Your task to perform on an android device: set an alarm Image 0: 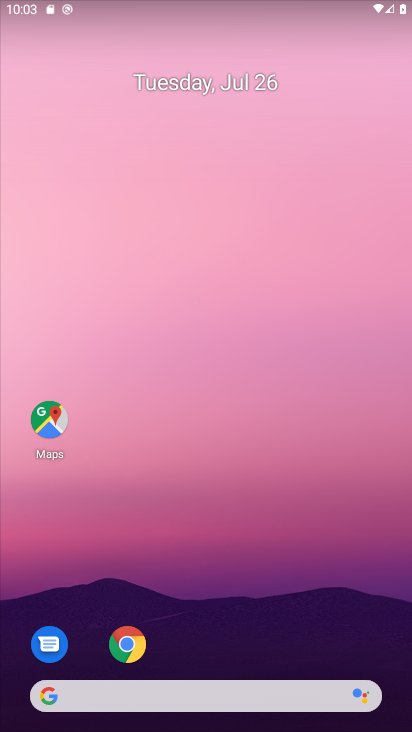
Step 0: drag from (210, 632) to (304, 5)
Your task to perform on an android device: set an alarm Image 1: 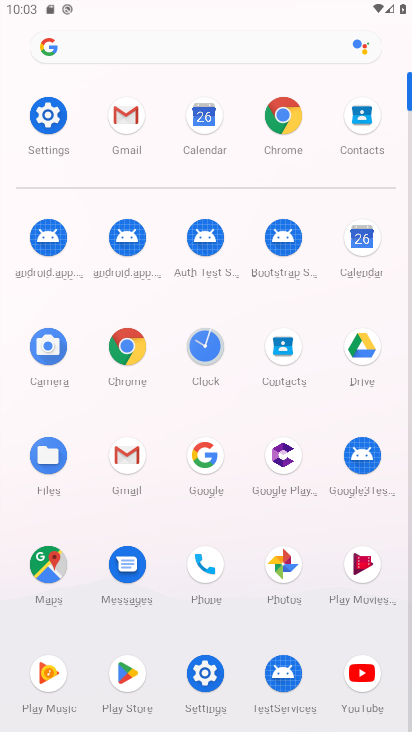
Step 1: click (212, 359)
Your task to perform on an android device: set an alarm Image 2: 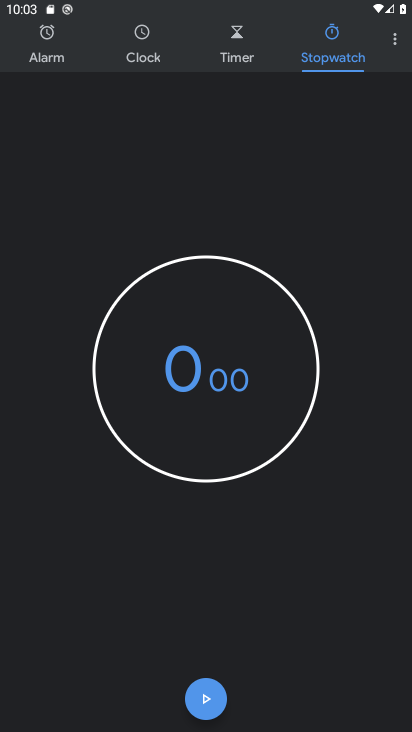
Step 2: click (65, 45)
Your task to perform on an android device: set an alarm Image 3: 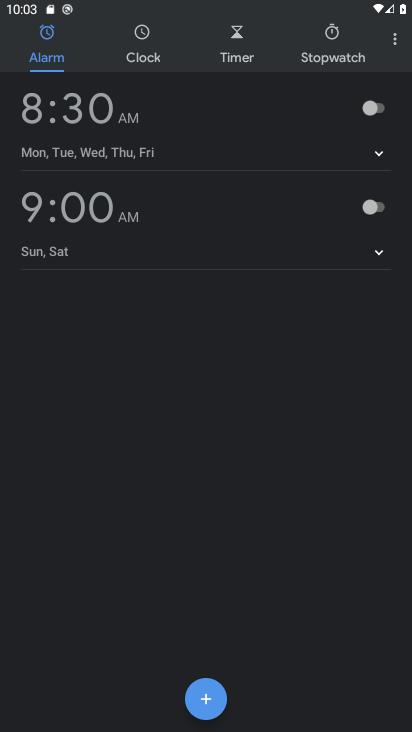
Step 3: click (118, 106)
Your task to perform on an android device: set an alarm Image 4: 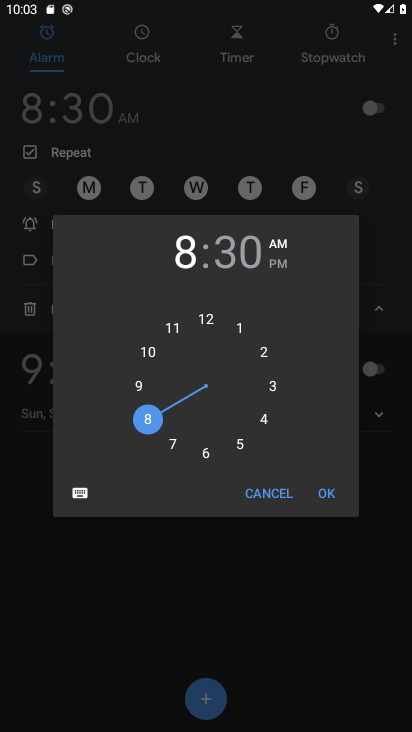
Step 4: click (138, 379)
Your task to perform on an android device: set an alarm Image 5: 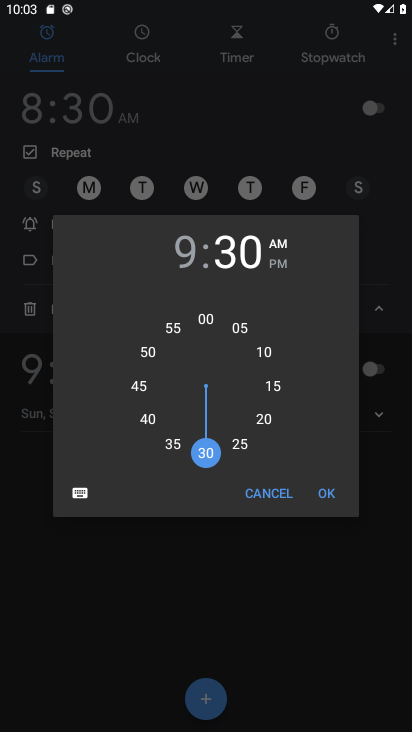
Step 5: click (267, 351)
Your task to perform on an android device: set an alarm Image 6: 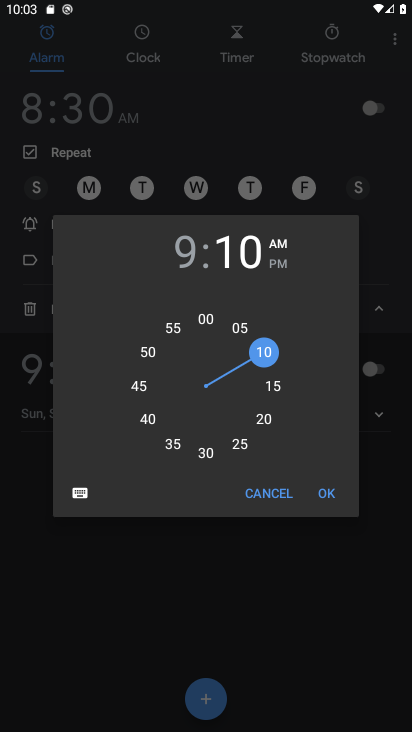
Step 6: click (328, 491)
Your task to perform on an android device: set an alarm Image 7: 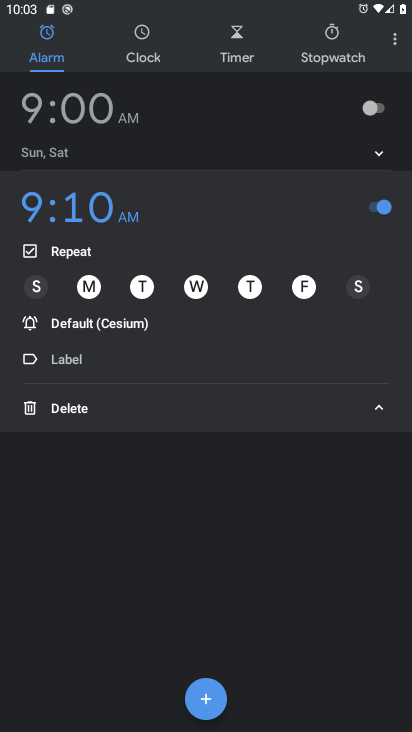
Step 7: task complete